Your task to perform on an android device: move an email to a new category in the gmail app Image 0: 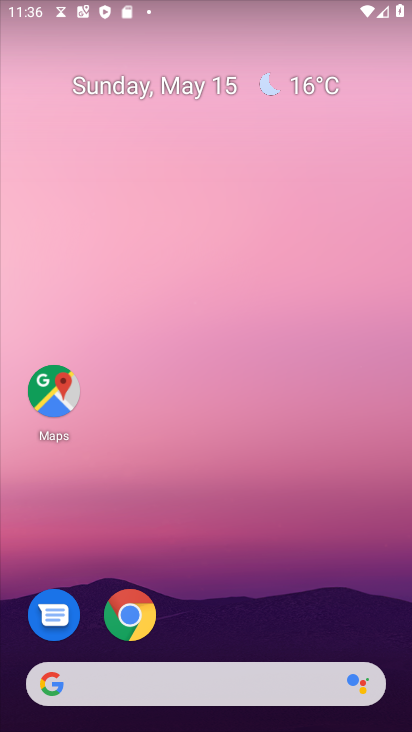
Step 0: drag from (215, 710) to (399, 302)
Your task to perform on an android device: move an email to a new category in the gmail app Image 1: 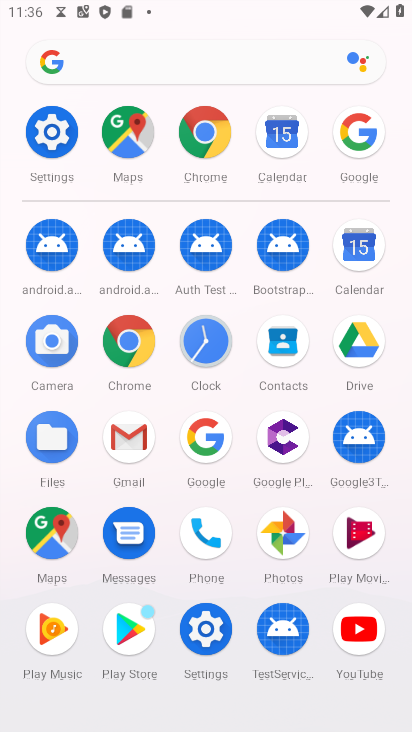
Step 1: click (140, 419)
Your task to perform on an android device: move an email to a new category in the gmail app Image 2: 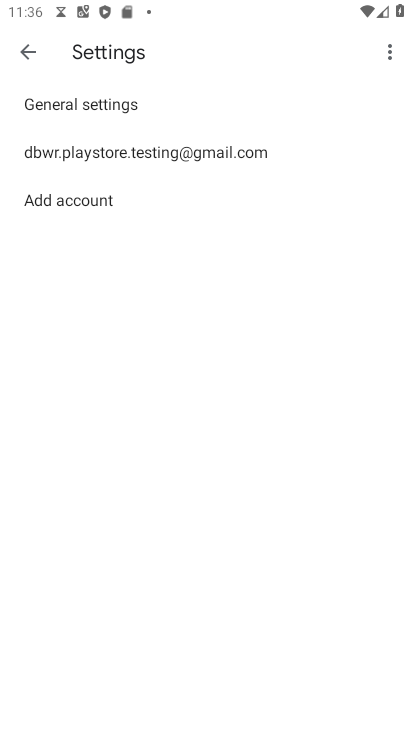
Step 2: press back button
Your task to perform on an android device: move an email to a new category in the gmail app Image 3: 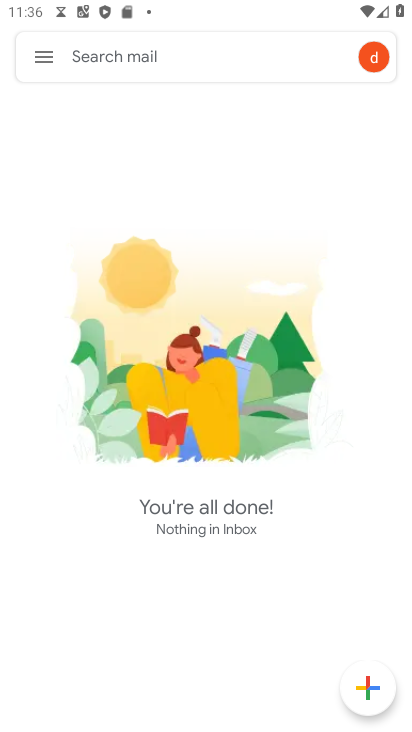
Step 3: click (36, 37)
Your task to perform on an android device: move an email to a new category in the gmail app Image 4: 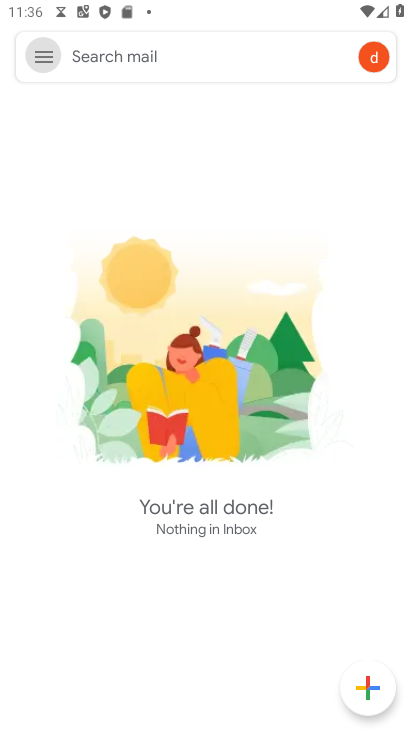
Step 4: click (41, 54)
Your task to perform on an android device: move an email to a new category in the gmail app Image 5: 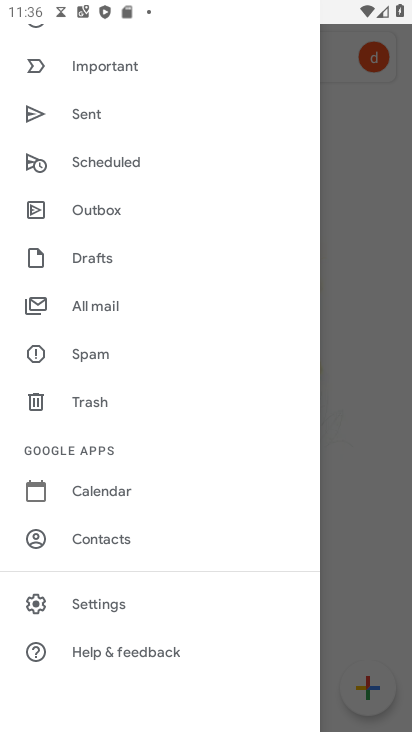
Step 5: drag from (197, 189) to (239, 619)
Your task to perform on an android device: move an email to a new category in the gmail app Image 6: 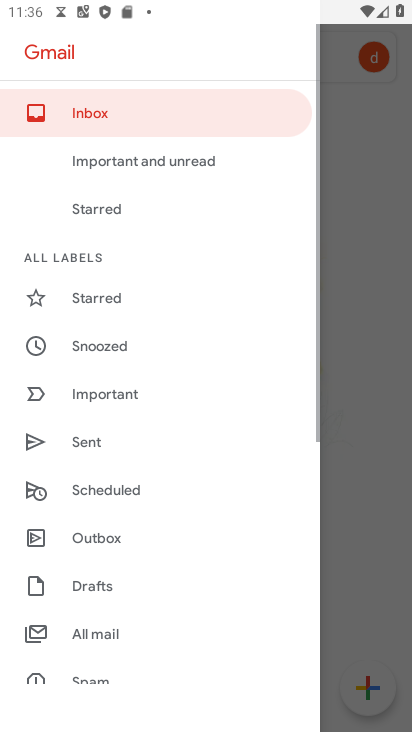
Step 6: drag from (83, 177) to (93, 451)
Your task to perform on an android device: move an email to a new category in the gmail app Image 7: 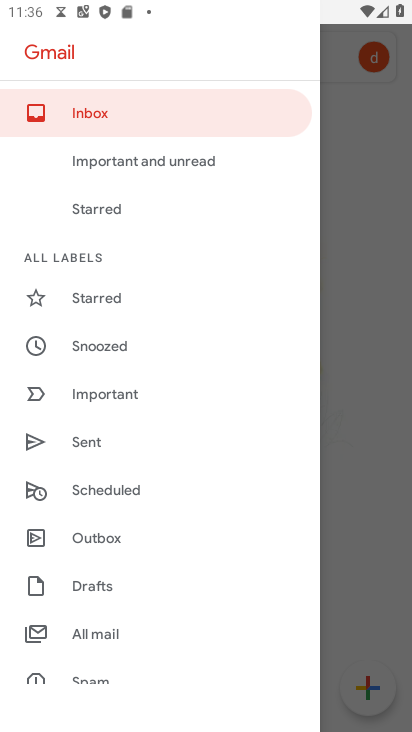
Step 7: click (117, 347)
Your task to perform on an android device: move an email to a new category in the gmail app Image 8: 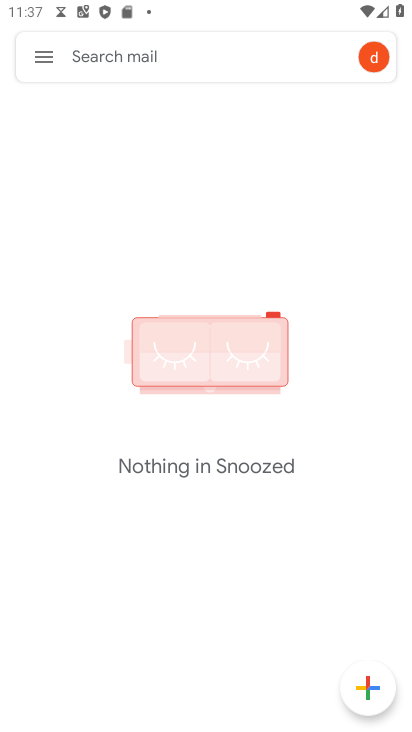
Step 8: task complete